Your task to perform on an android device: open a new tab in the chrome app Image 0: 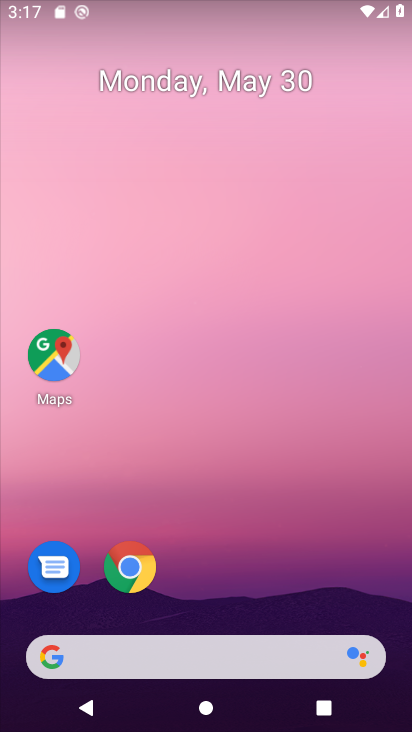
Step 0: click (130, 580)
Your task to perform on an android device: open a new tab in the chrome app Image 1: 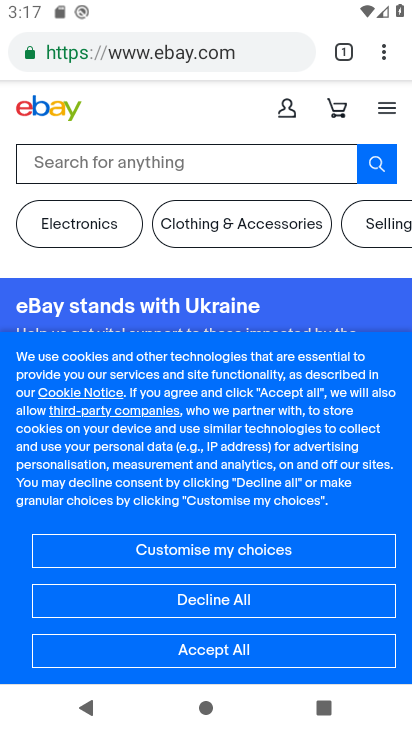
Step 1: click (380, 56)
Your task to perform on an android device: open a new tab in the chrome app Image 2: 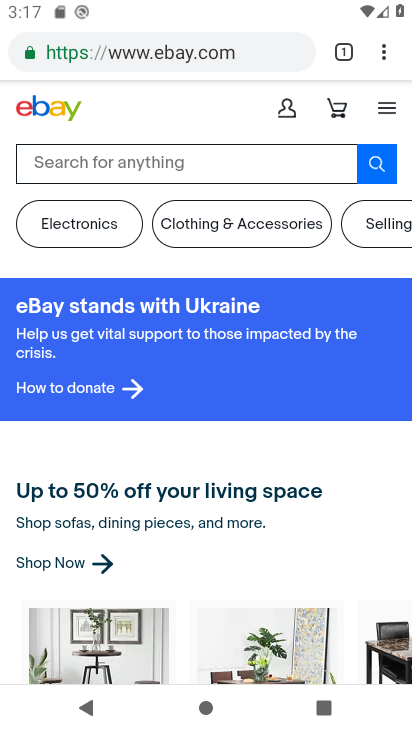
Step 2: click (383, 54)
Your task to perform on an android device: open a new tab in the chrome app Image 3: 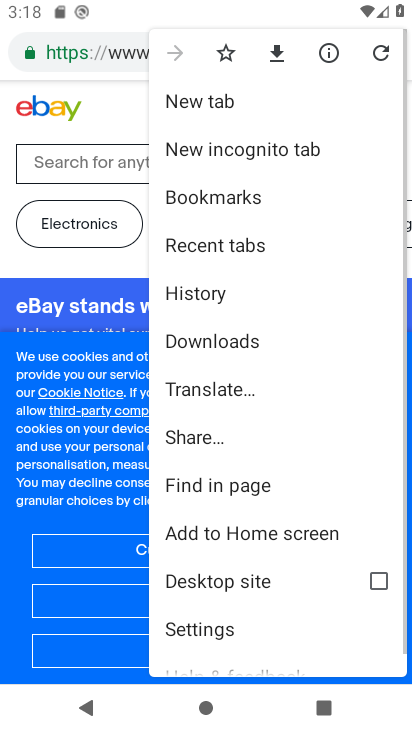
Step 3: click (183, 98)
Your task to perform on an android device: open a new tab in the chrome app Image 4: 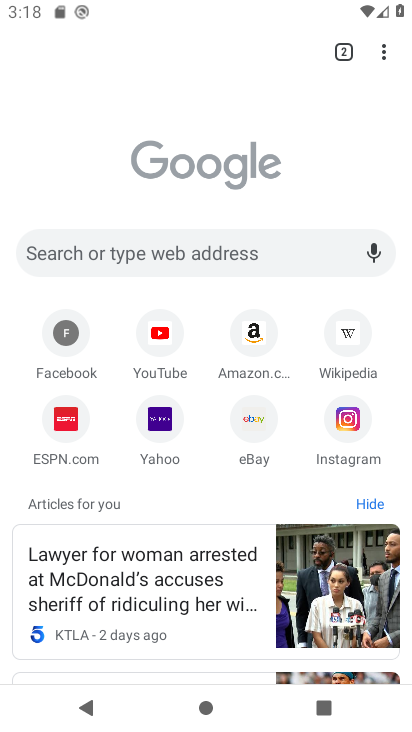
Step 4: task complete